Your task to perform on an android device: turn on showing notifications on the lock screen Image 0: 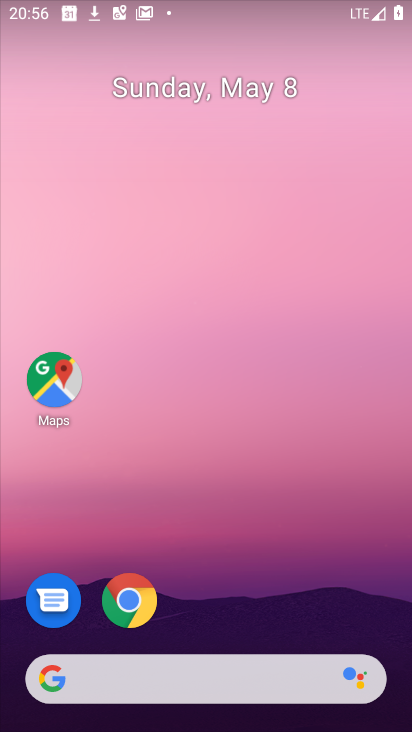
Step 0: drag from (303, 702) to (330, 148)
Your task to perform on an android device: turn on showing notifications on the lock screen Image 1: 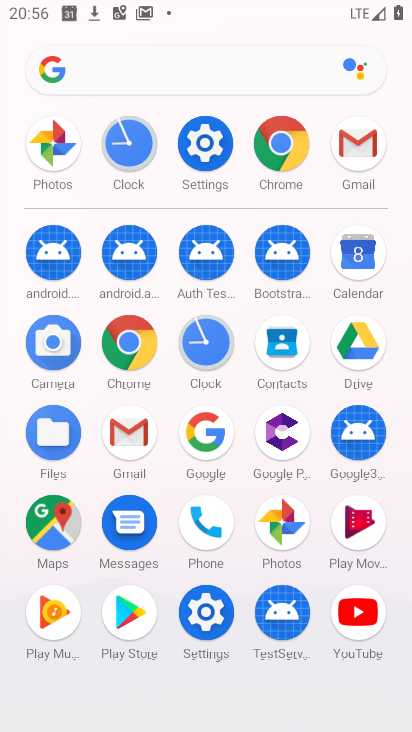
Step 1: click (208, 169)
Your task to perform on an android device: turn on showing notifications on the lock screen Image 2: 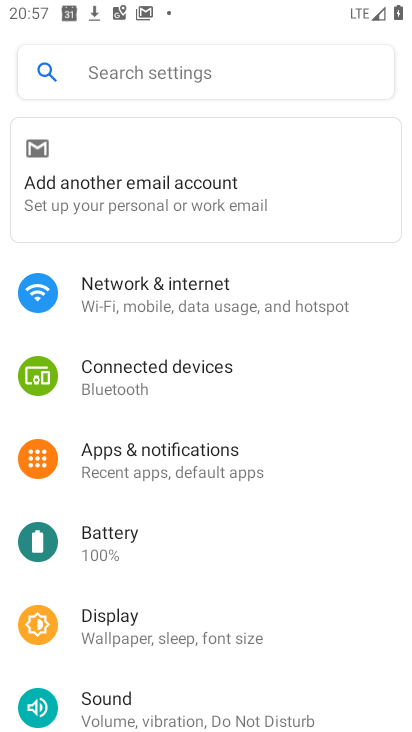
Step 2: click (151, 69)
Your task to perform on an android device: turn on showing notifications on the lock screen Image 3: 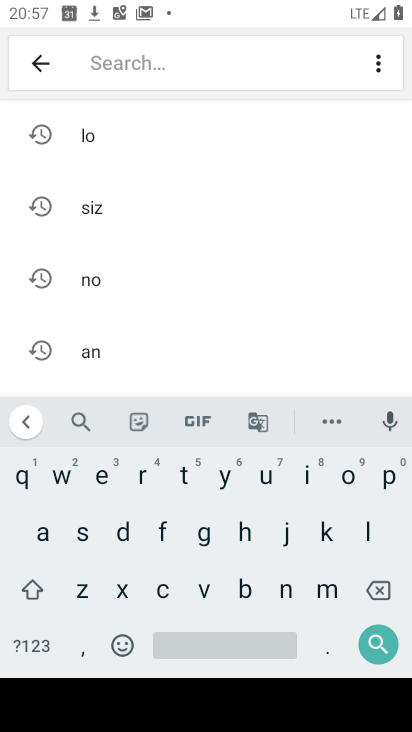
Step 3: click (280, 588)
Your task to perform on an android device: turn on showing notifications on the lock screen Image 4: 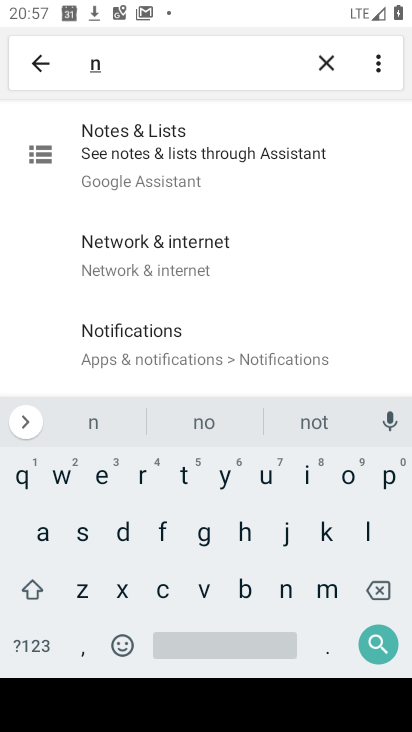
Step 4: click (342, 480)
Your task to perform on an android device: turn on showing notifications on the lock screen Image 5: 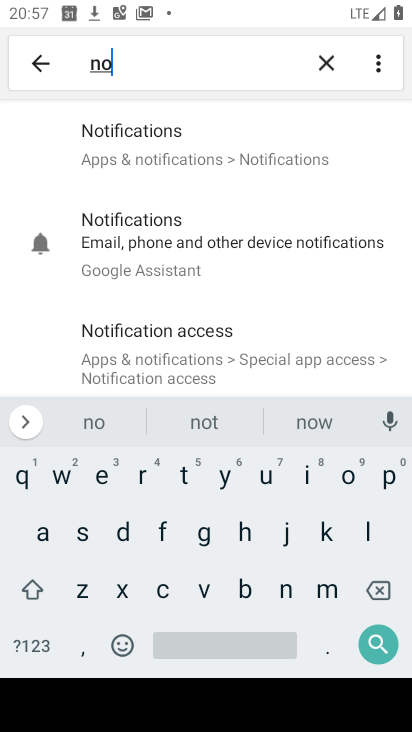
Step 5: click (195, 153)
Your task to perform on an android device: turn on showing notifications on the lock screen Image 6: 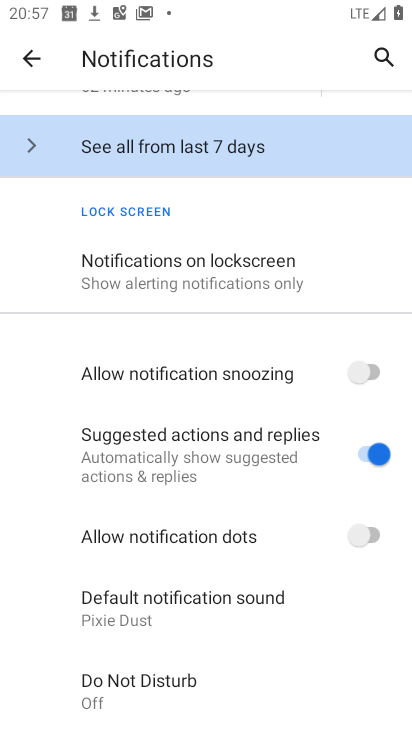
Step 6: click (165, 289)
Your task to perform on an android device: turn on showing notifications on the lock screen Image 7: 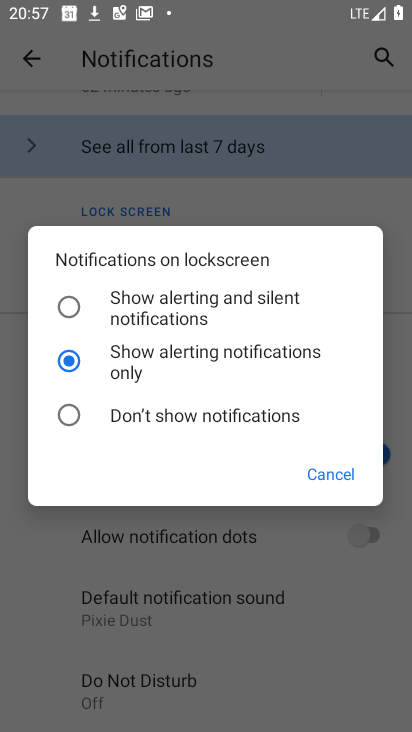
Step 7: click (121, 307)
Your task to perform on an android device: turn on showing notifications on the lock screen Image 8: 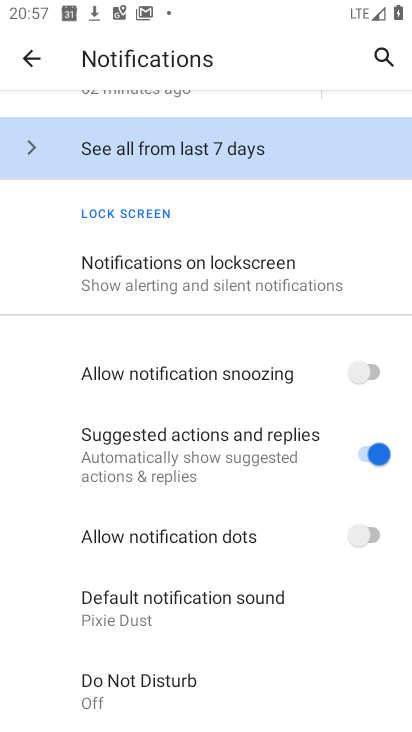
Step 8: task complete